Your task to perform on an android device: Show me recent news Image 0: 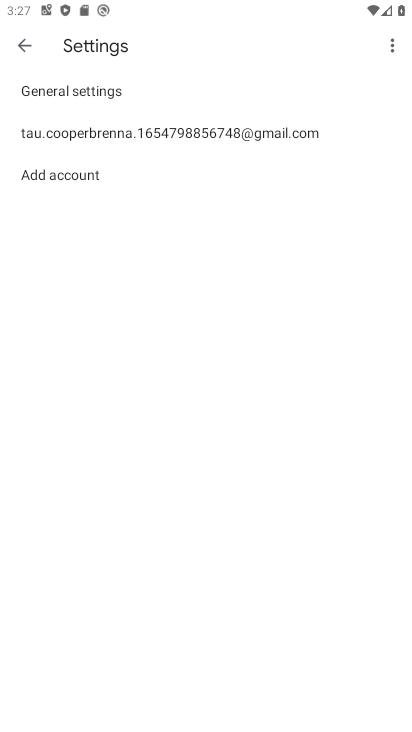
Step 0: press home button
Your task to perform on an android device: Show me recent news Image 1: 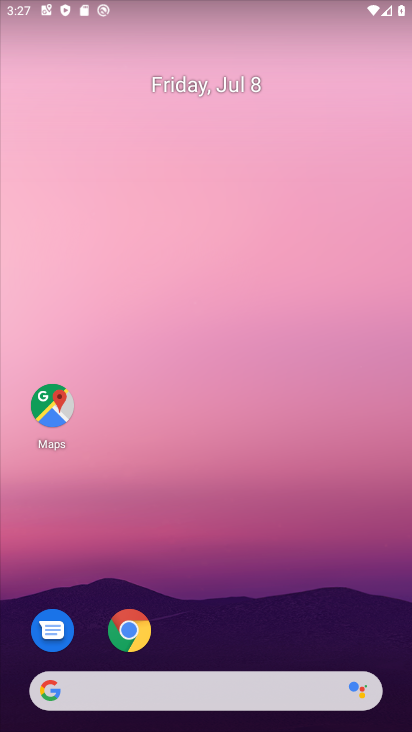
Step 1: click (280, 153)
Your task to perform on an android device: Show me recent news Image 2: 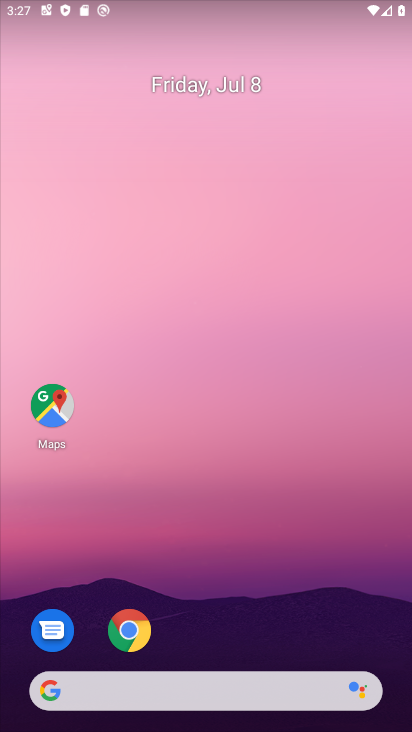
Step 2: click (298, 525)
Your task to perform on an android device: Show me recent news Image 3: 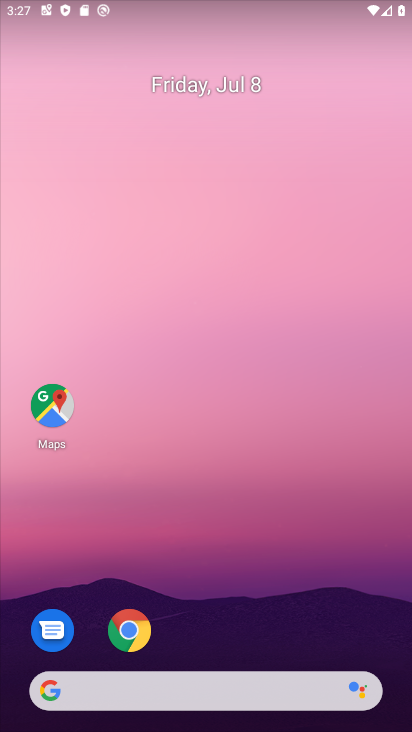
Step 3: drag from (269, 616) to (266, 133)
Your task to perform on an android device: Show me recent news Image 4: 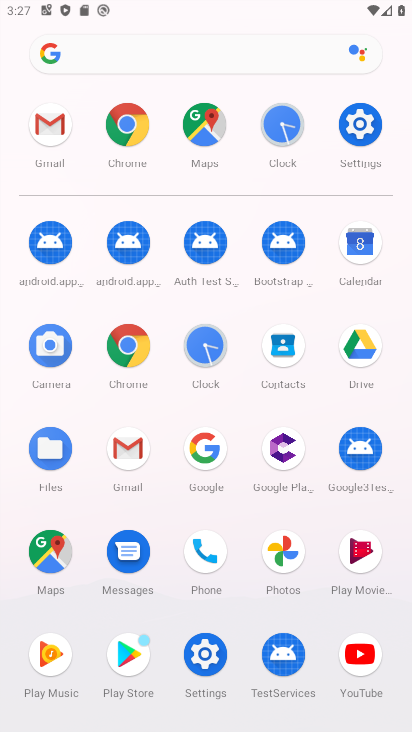
Step 4: click (226, 66)
Your task to perform on an android device: Show me recent news Image 5: 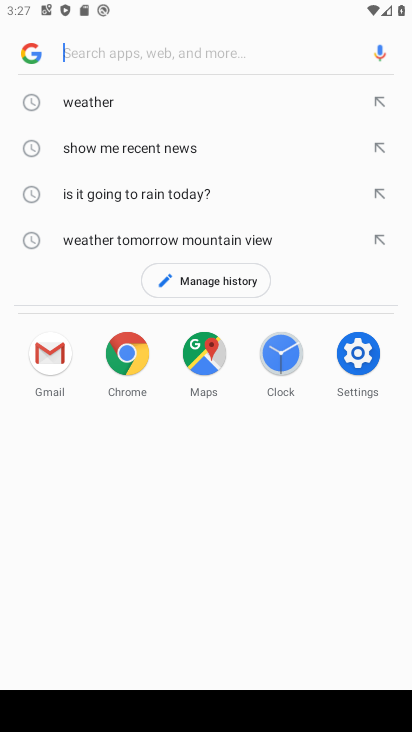
Step 5: click (102, 112)
Your task to perform on an android device: Show me recent news Image 6: 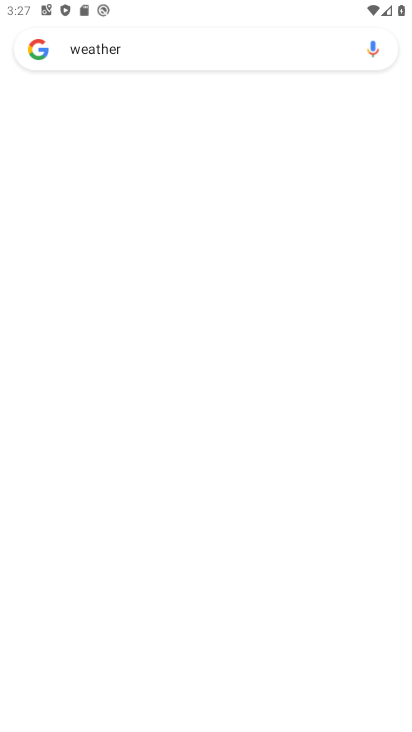
Step 6: task complete